Your task to perform on an android device: turn on showing notifications on the lock screen Image 0: 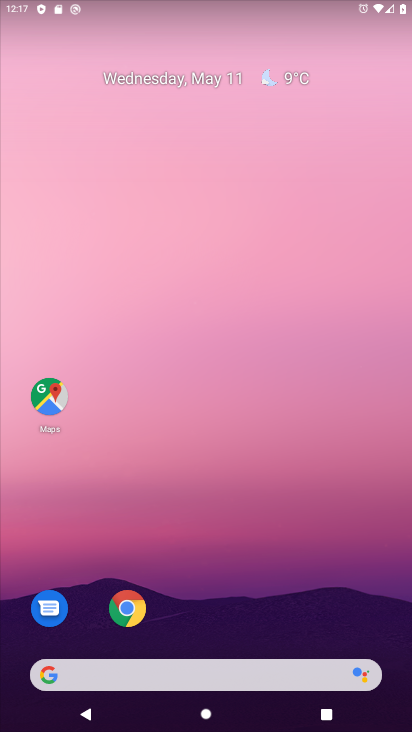
Step 0: drag from (274, 458) to (249, 218)
Your task to perform on an android device: turn on showing notifications on the lock screen Image 1: 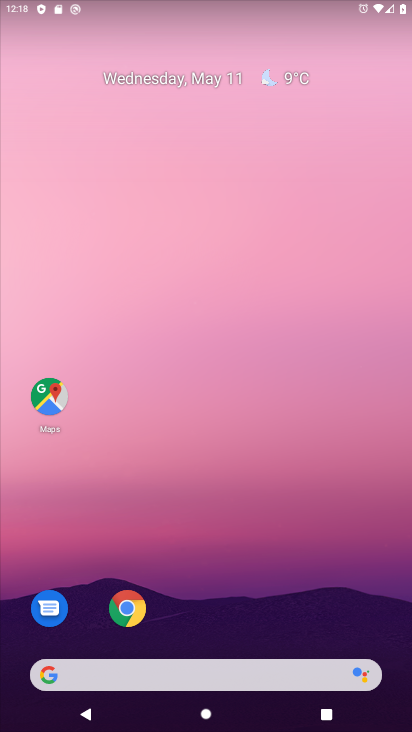
Step 1: drag from (206, 568) to (189, 359)
Your task to perform on an android device: turn on showing notifications on the lock screen Image 2: 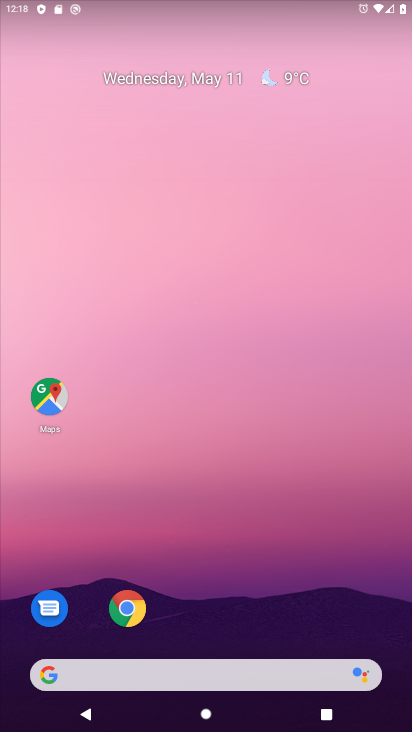
Step 2: drag from (211, 559) to (183, 243)
Your task to perform on an android device: turn on showing notifications on the lock screen Image 3: 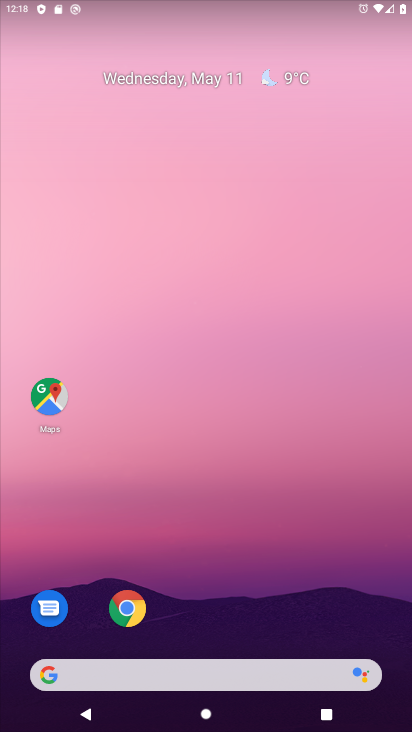
Step 3: drag from (188, 616) to (191, 131)
Your task to perform on an android device: turn on showing notifications on the lock screen Image 4: 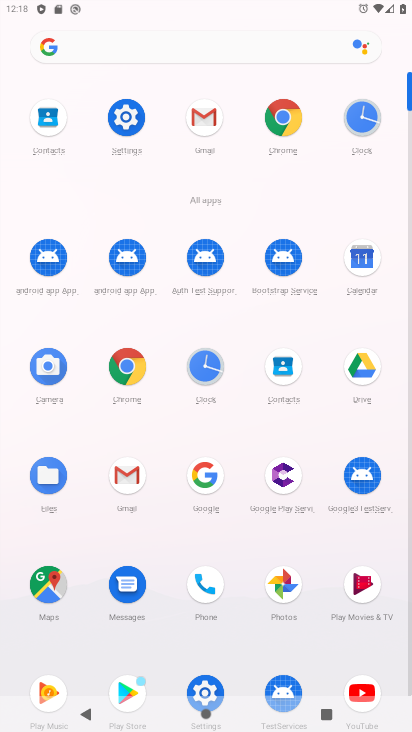
Step 4: click (139, 131)
Your task to perform on an android device: turn on showing notifications on the lock screen Image 5: 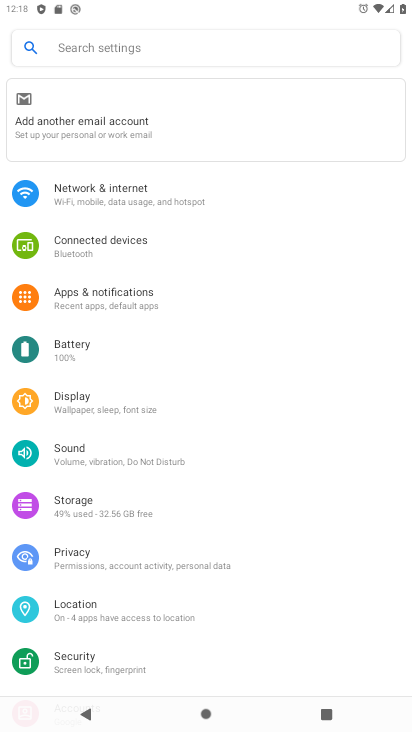
Step 5: click (152, 296)
Your task to perform on an android device: turn on showing notifications on the lock screen Image 6: 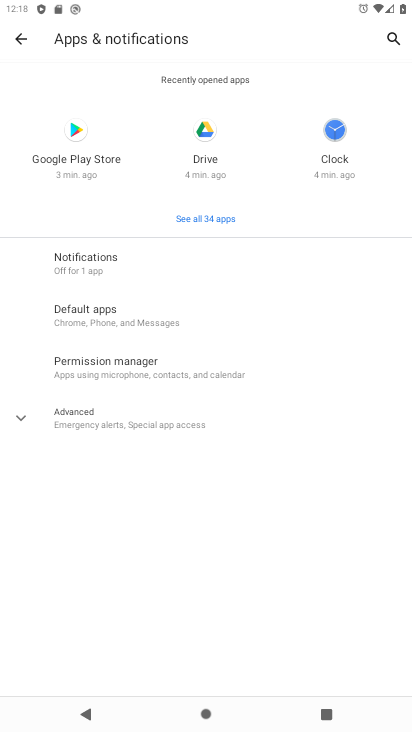
Step 6: click (179, 266)
Your task to perform on an android device: turn on showing notifications on the lock screen Image 7: 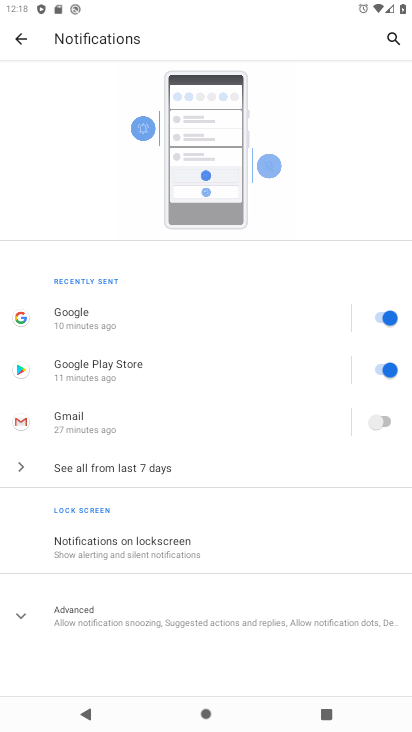
Step 7: click (181, 548)
Your task to perform on an android device: turn on showing notifications on the lock screen Image 8: 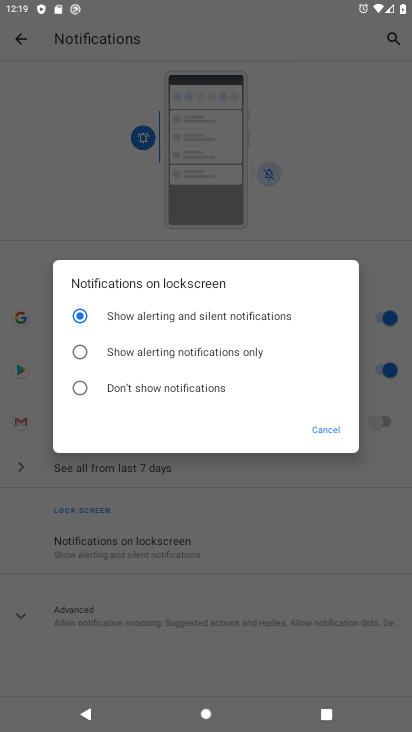
Step 8: task complete